Your task to perform on an android device: change the clock display to show seconds Image 0: 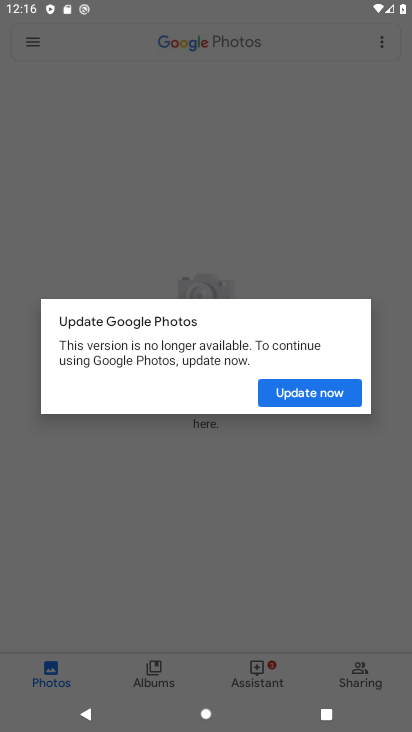
Step 0: click (296, 401)
Your task to perform on an android device: change the clock display to show seconds Image 1: 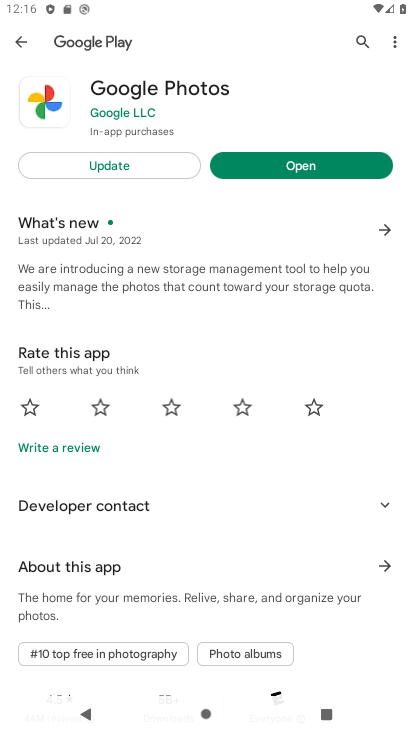
Step 1: click (159, 159)
Your task to perform on an android device: change the clock display to show seconds Image 2: 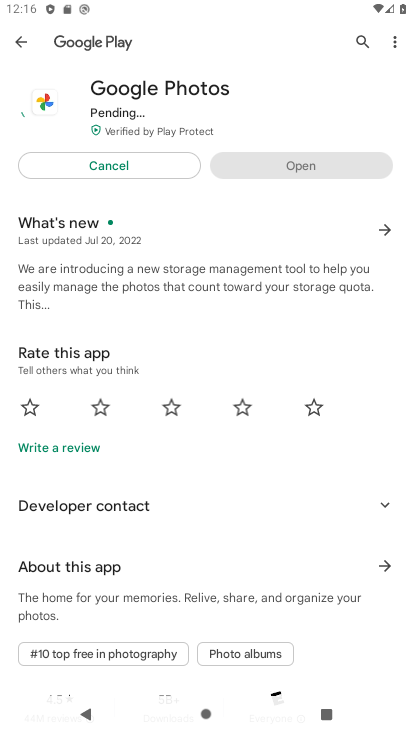
Step 2: press home button
Your task to perform on an android device: change the clock display to show seconds Image 3: 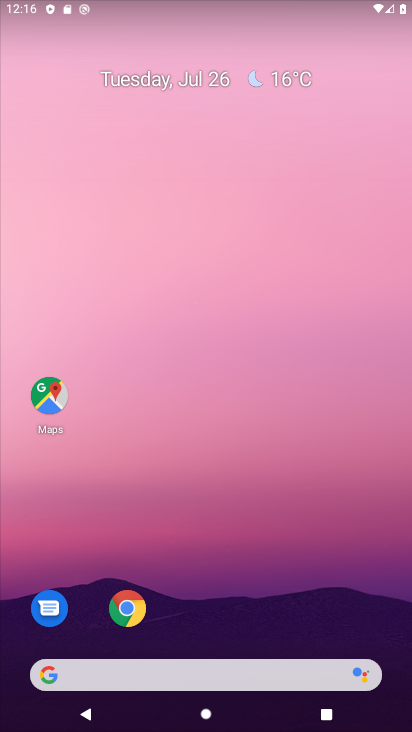
Step 3: drag from (312, 642) to (278, 281)
Your task to perform on an android device: change the clock display to show seconds Image 4: 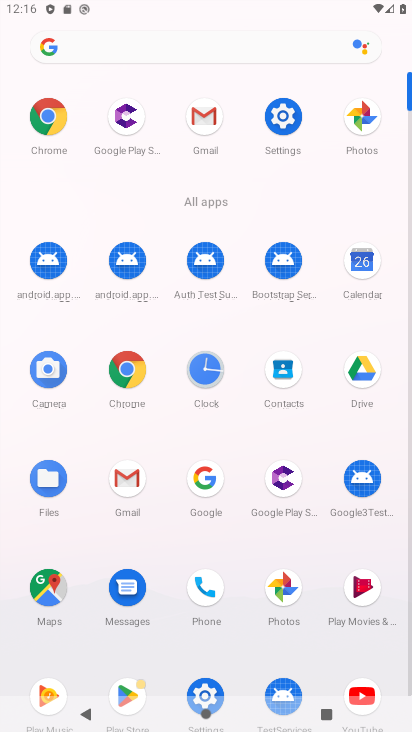
Step 4: click (288, 138)
Your task to perform on an android device: change the clock display to show seconds Image 5: 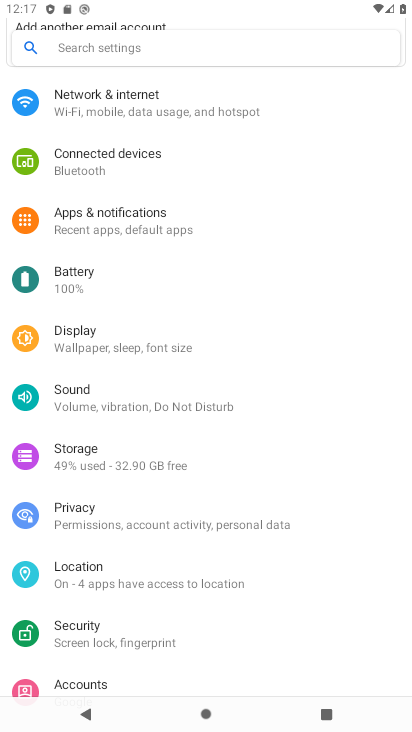
Step 5: task complete